Your task to perform on an android device: Open Yahoo.com Image 0: 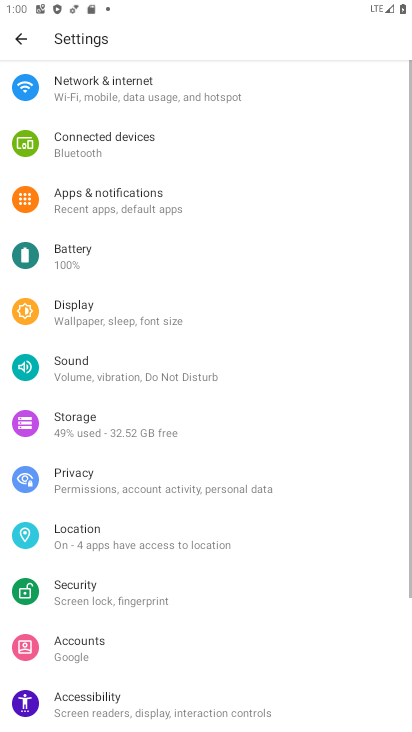
Step 0: press home button
Your task to perform on an android device: Open Yahoo.com Image 1: 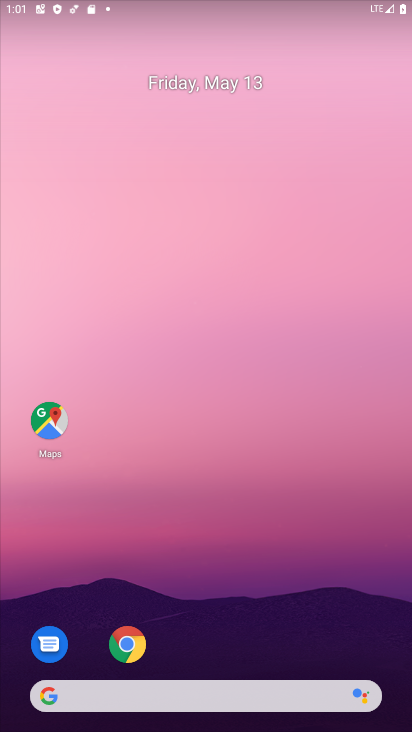
Step 1: drag from (322, 628) to (287, 84)
Your task to perform on an android device: Open Yahoo.com Image 2: 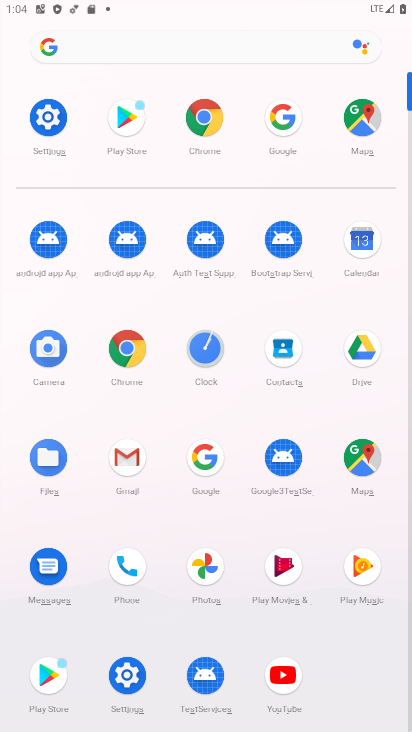
Step 2: click (119, 356)
Your task to perform on an android device: Open Yahoo.com Image 3: 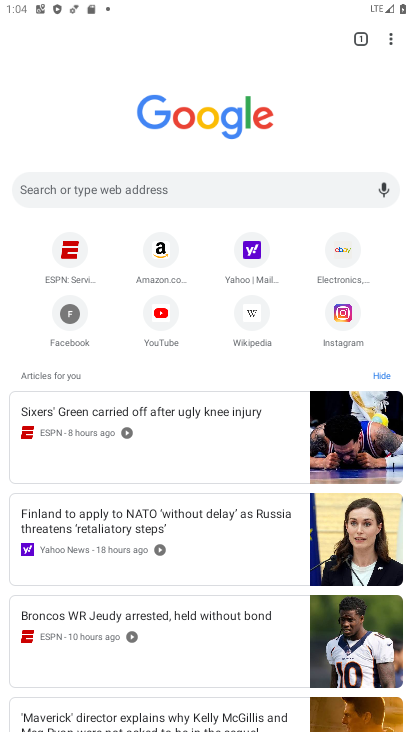
Step 3: click (253, 248)
Your task to perform on an android device: Open Yahoo.com Image 4: 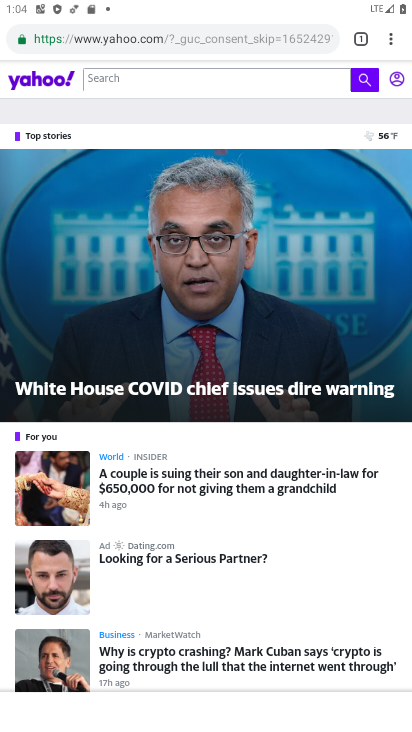
Step 4: task complete